Your task to perform on an android device: What's the weather? Image 0: 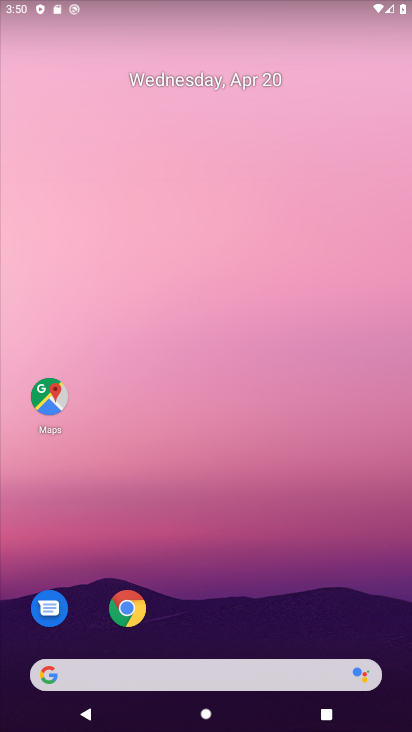
Step 0: drag from (216, 701) to (260, 2)
Your task to perform on an android device: What's the weather? Image 1: 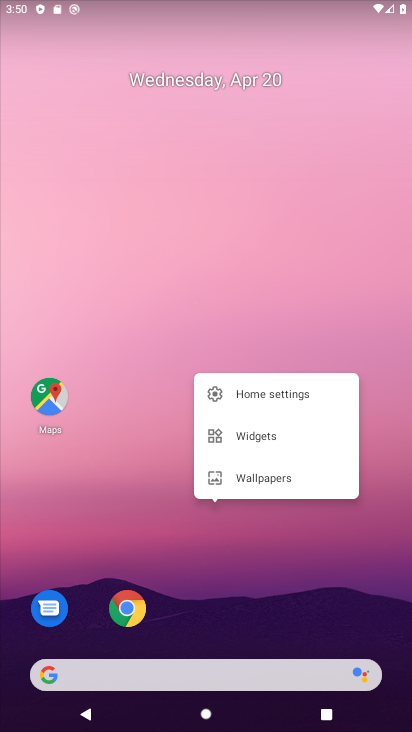
Step 1: drag from (131, 697) to (210, 79)
Your task to perform on an android device: What's the weather? Image 2: 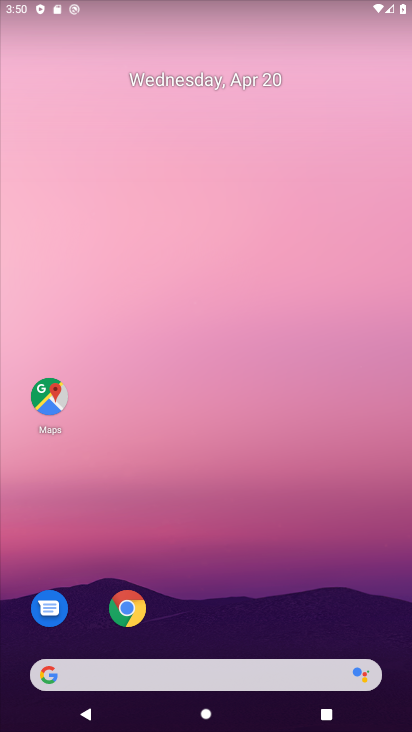
Step 2: drag from (174, 654) to (217, 89)
Your task to perform on an android device: What's the weather? Image 3: 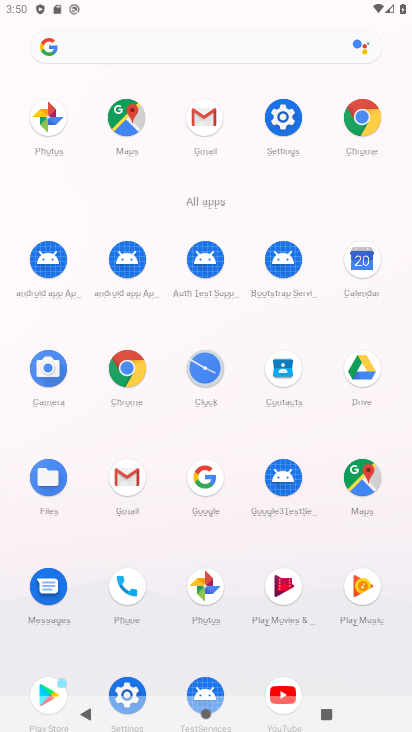
Step 3: click (167, 47)
Your task to perform on an android device: What's the weather? Image 4: 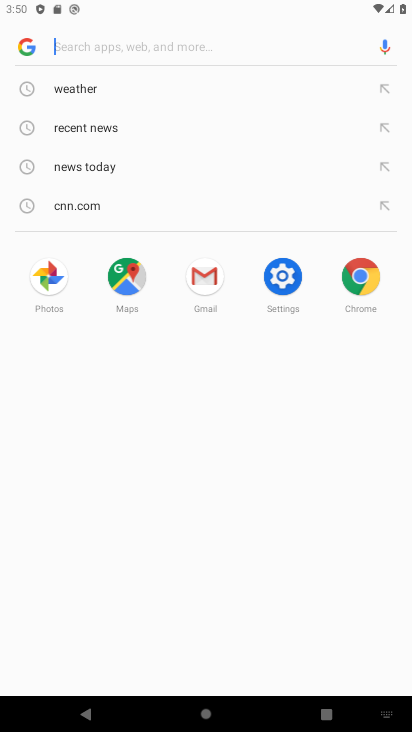
Step 4: click (86, 88)
Your task to perform on an android device: What's the weather? Image 5: 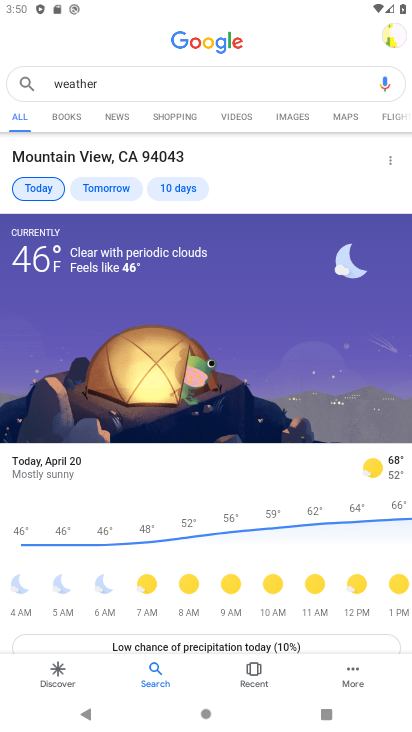
Step 5: click (121, 324)
Your task to perform on an android device: What's the weather? Image 6: 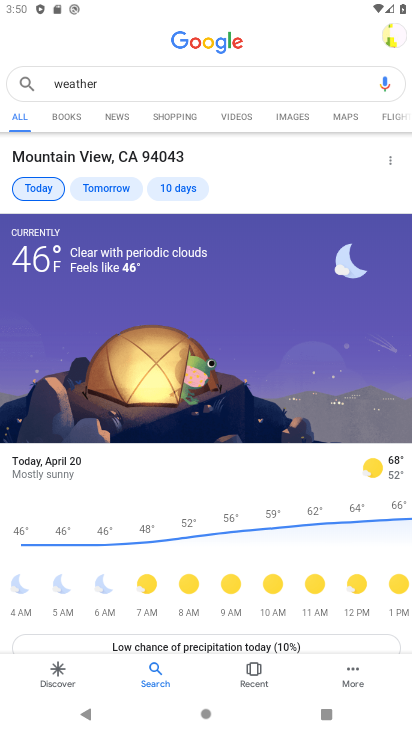
Step 6: click (116, 339)
Your task to perform on an android device: What's the weather? Image 7: 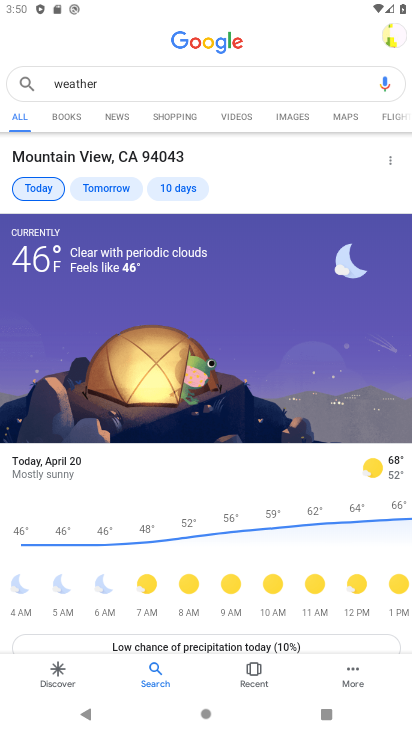
Step 7: task complete